Your task to perform on an android device: turn off notifications in google photos Image 0: 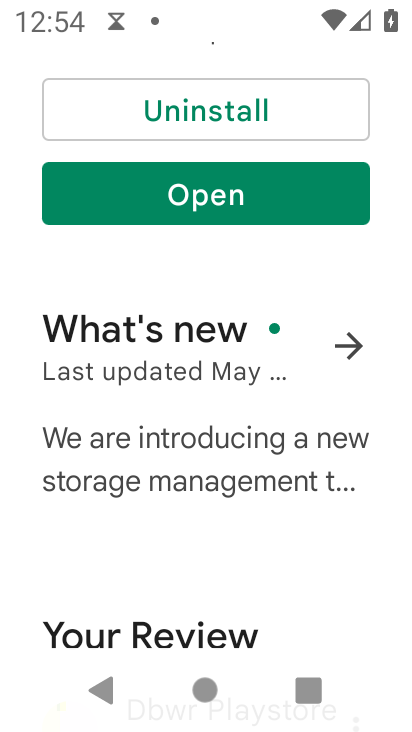
Step 0: press home button
Your task to perform on an android device: turn off notifications in google photos Image 1: 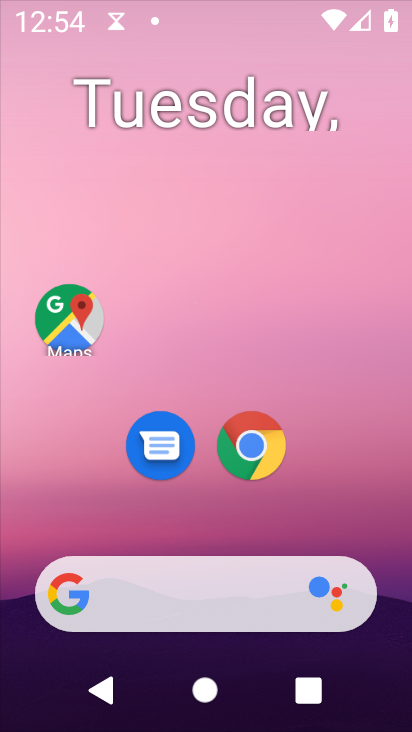
Step 1: drag from (293, 580) to (280, 52)
Your task to perform on an android device: turn off notifications in google photos Image 2: 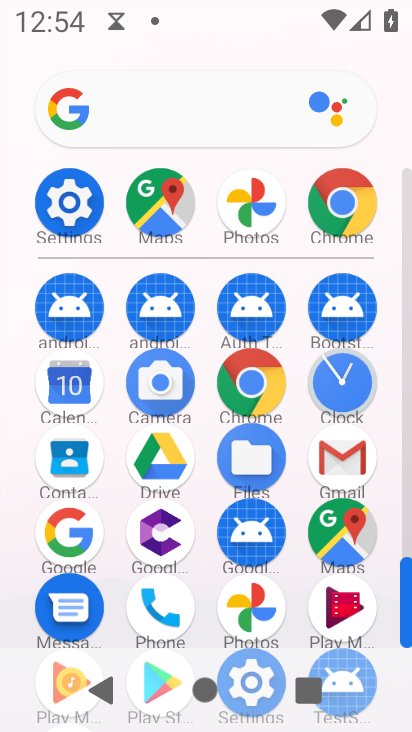
Step 2: click (258, 611)
Your task to perform on an android device: turn off notifications in google photos Image 3: 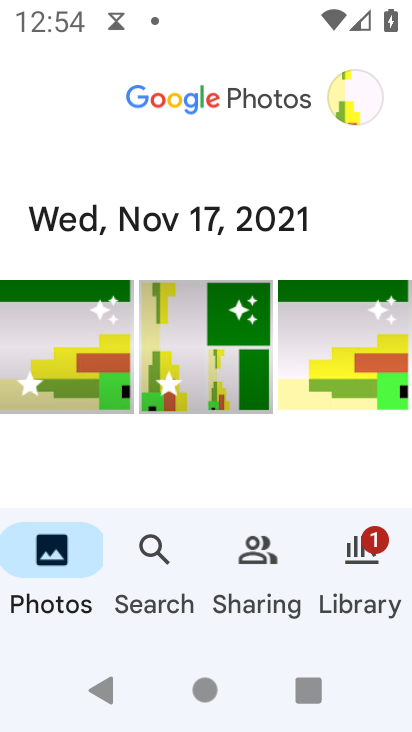
Step 3: click (344, 100)
Your task to perform on an android device: turn off notifications in google photos Image 4: 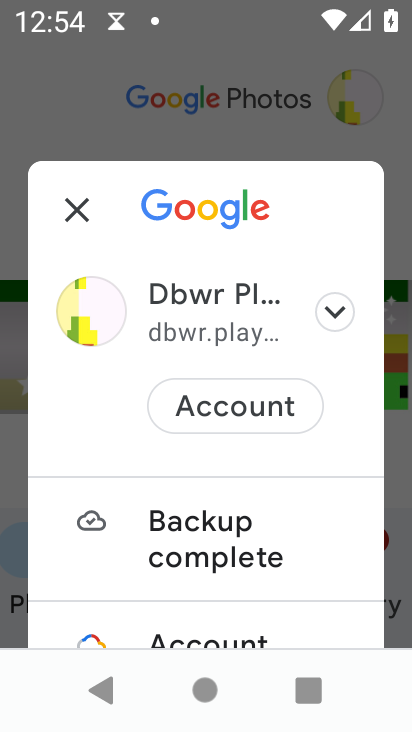
Step 4: drag from (253, 555) to (257, 136)
Your task to perform on an android device: turn off notifications in google photos Image 5: 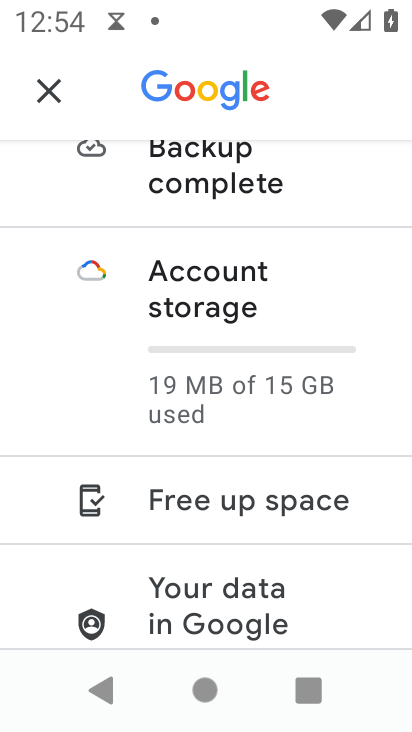
Step 5: drag from (282, 584) to (307, 294)
Your task to perform on an android device: turn off notifications in google photos Image 6: 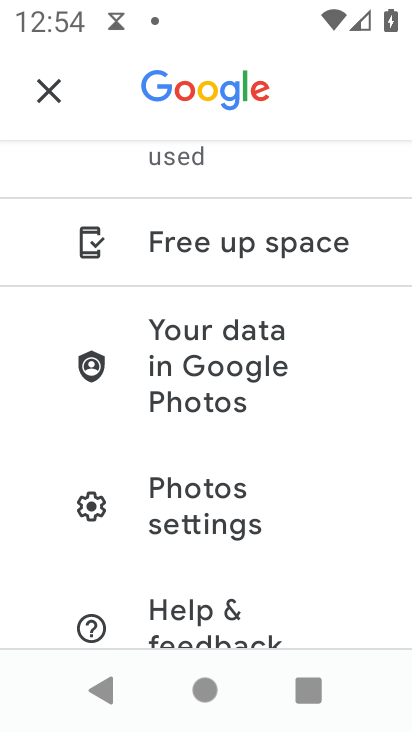
Step 6: click (303, 530)
Your task to perform on an android device: turn off notifications in google photos Image 7: 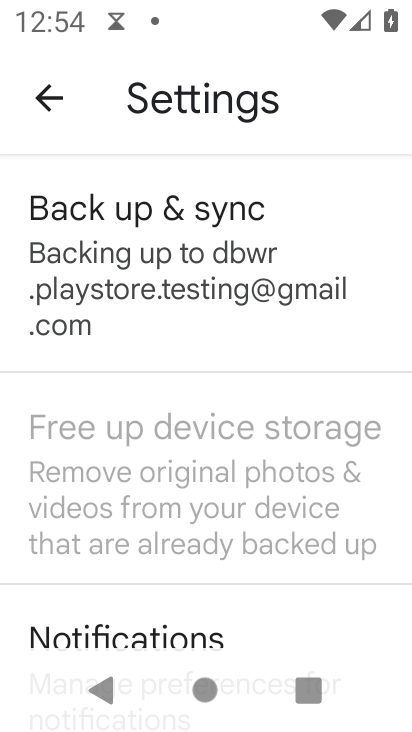
Step 7: drag from (303, 530) to (352, 209)
Your task to perform on an android device: turn off notifications in google photos Image 8: 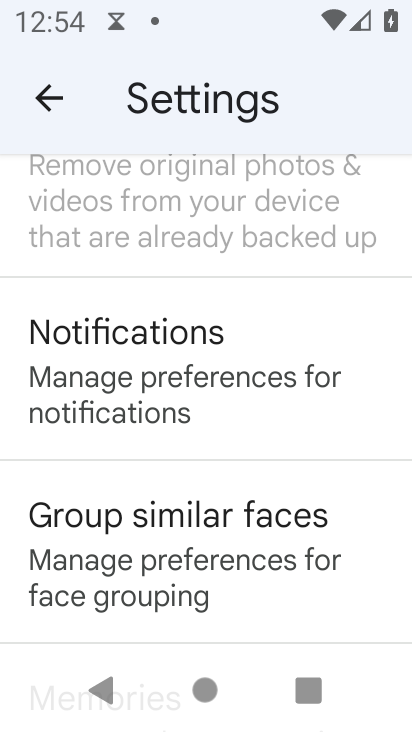
Step 8: click (276, 415)
Your task to perform on an android device: turn off notifications in google photos Image 9: 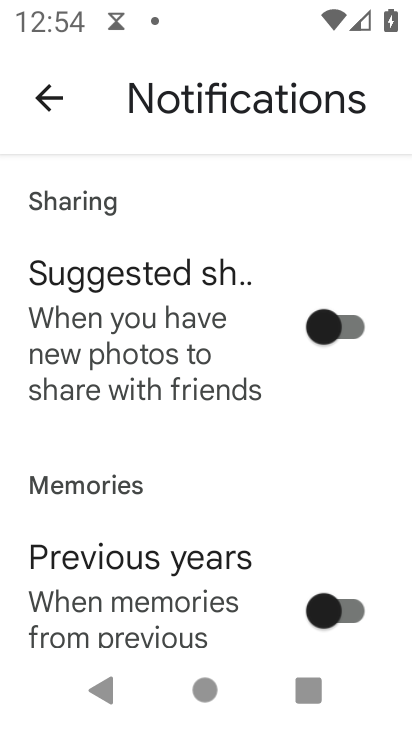
Step 9: drag from (219, 590) to (291, 110)
Your task to perform on an android device: turn off notifications in google photos Image 10: 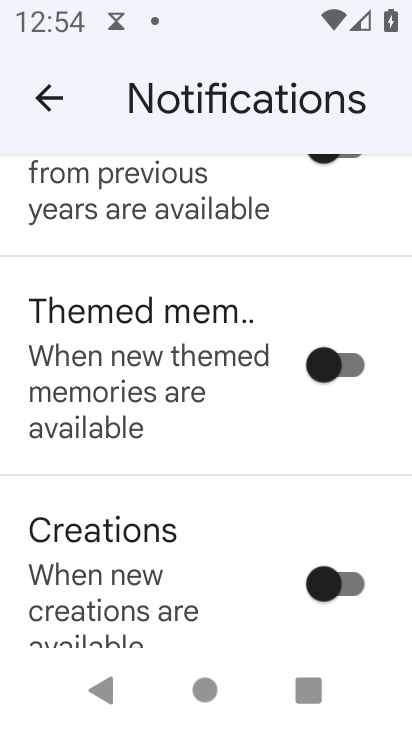
Step 10: drag from (220, 590) to (315, 138)
Your task to perform on an android device: turn off notifications in google photos Image 11: 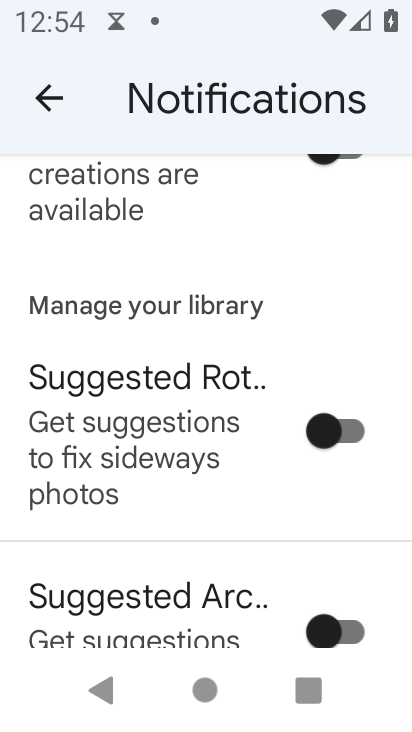
Step 11: drag from (238, 595) to (243, 225)
Your task to perform on an android device: turn off notifications in google photos Image 12: 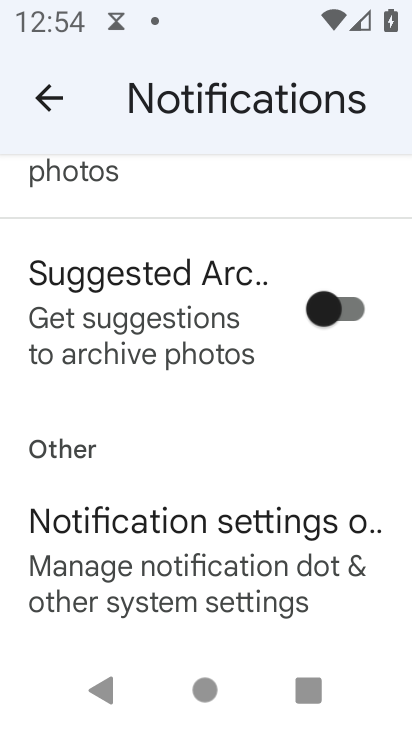
Step 12: click (221, 576)
Your task to perform on an android device: turn off notifications in google photos Image 13: 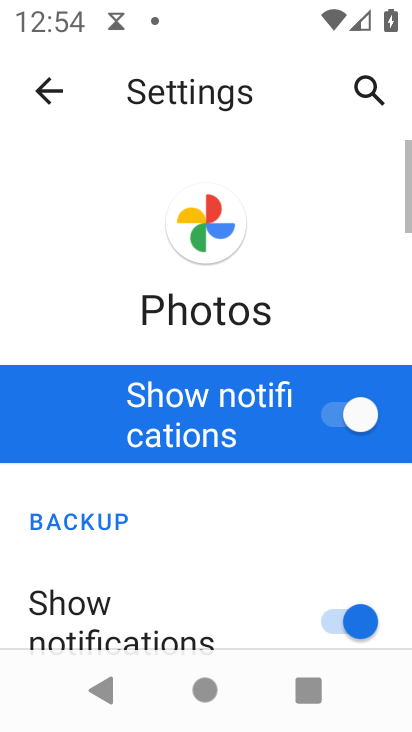
Step 13: click (332, 418)
Your task to perform on an android device: turn off notifications in google photos Image 14: 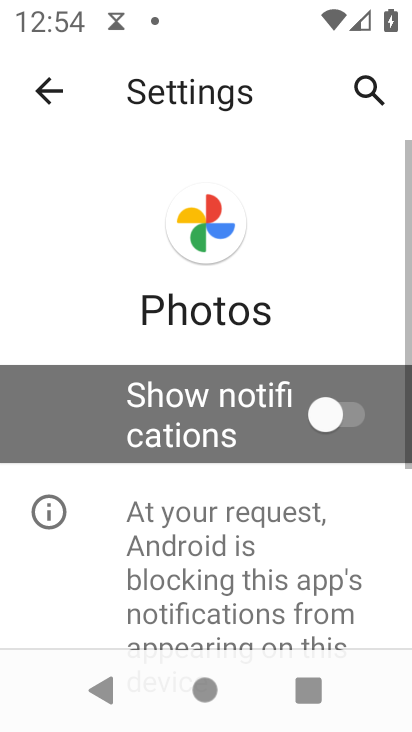
Step 14: task complete